Your task to perform on an android device: Open Youtube and go to the subscriptions tab Image 0: 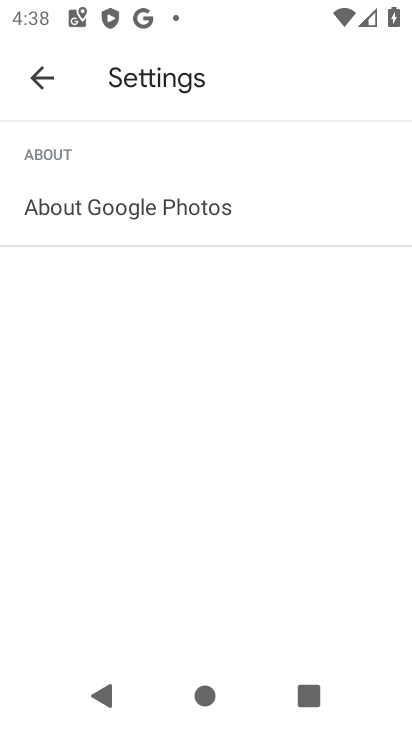
Step 0: press back button
Your task to perform on an android device: Open Youtube and go to the subscriptions tab Image 1: 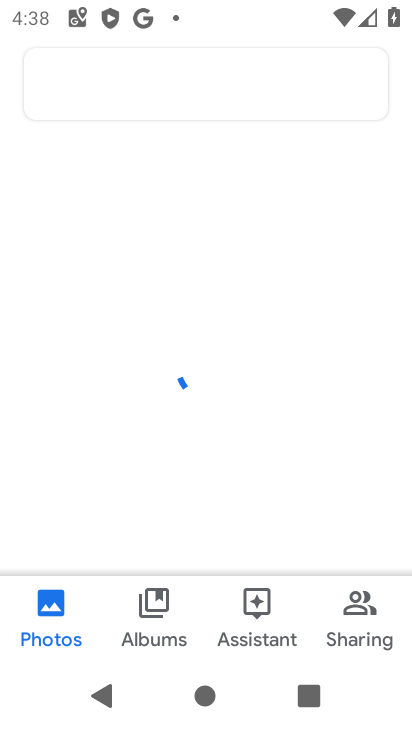
Step 1: press back button
Your task to perform on an android device: Open Youtube and go to the subscriptions tab Image 2: 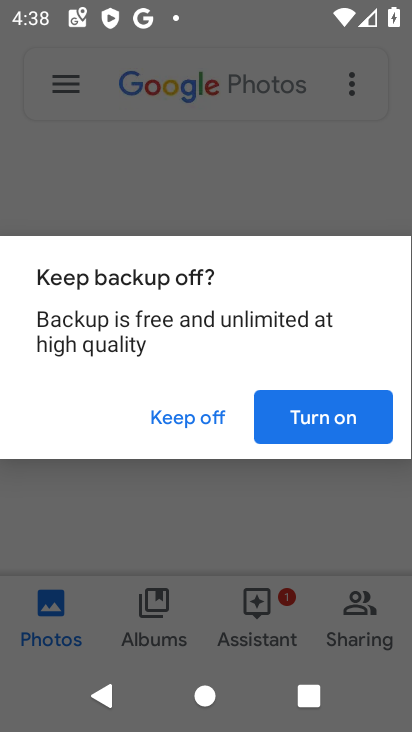
Step 2: press home button
Your task to perform on an android device: Open Youtube and go to the subscriptions tab Image 3: 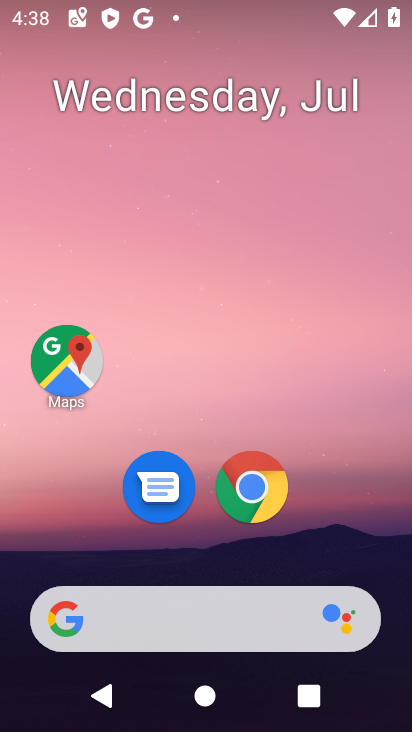
Step 3: drag from (204, 544) to (250, 17)
Your task to perform on an android device: Open Youtube and go to the subscriptions tab Image 4: 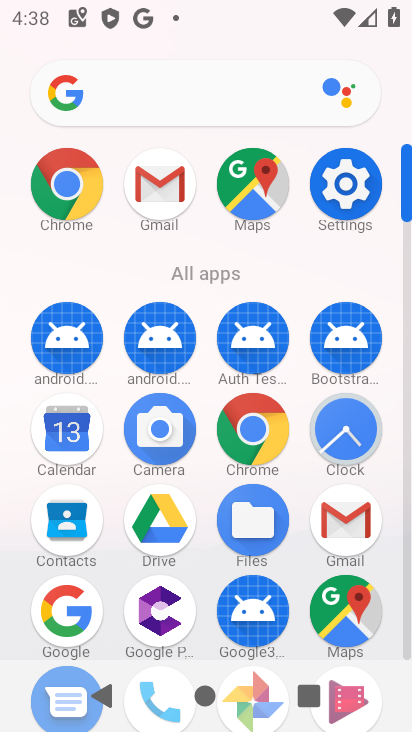
Step 4: drag from (178, 566) to (266, 51)
Your task to perform on an android device: Open Youtube and go to the subscriptions tab Image 5: 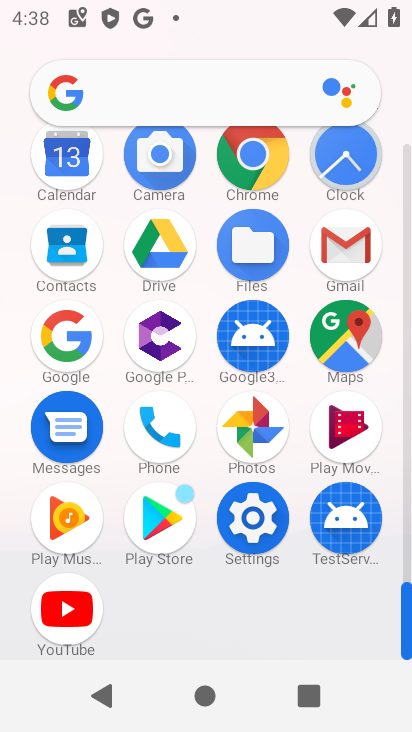
Step 5: click (54, 607)
Your task to perform on an android device: Open Youtube and go to the subscriptions tab Image 6: 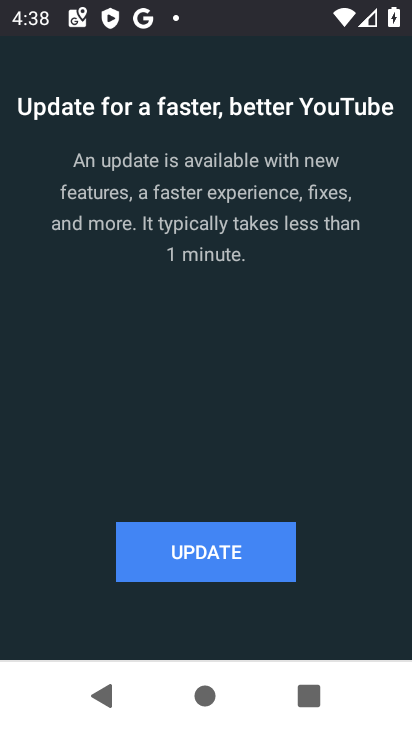
Step 6: task complete